Your task to perform on an android device: Open the stopwatch Image 0: 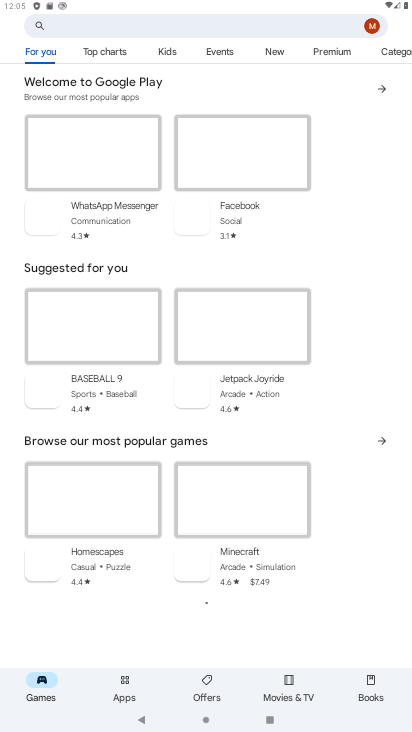
Step 0: click (215, 634)
Your task to perform on an android device: Open the stopwatch Image 1: 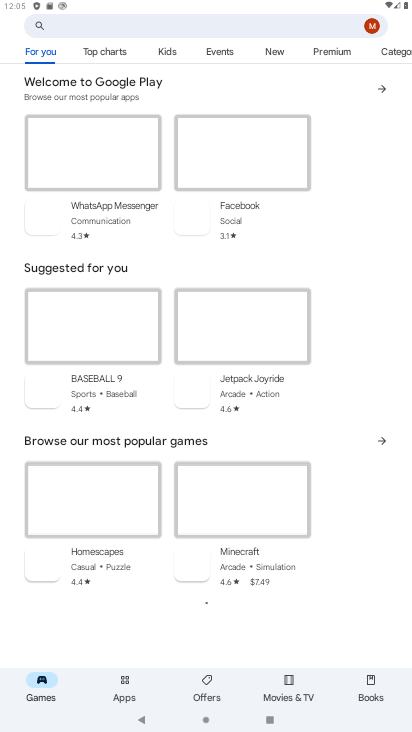
Step 1: press back button
Your task to perform on an android device: Open the stopwatch Image 2: 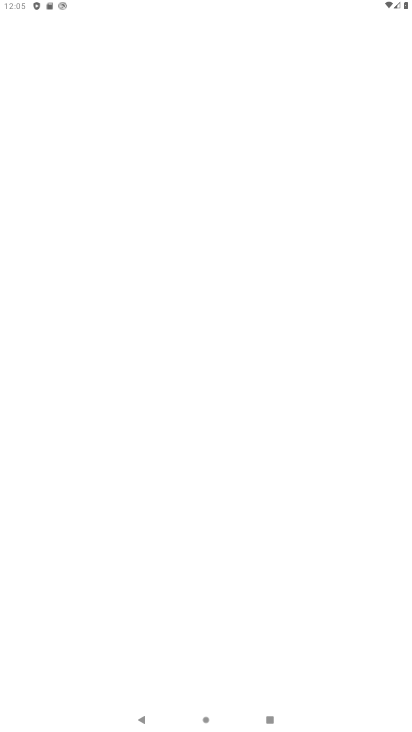
Step 2: press back button
Your task to perform on an android device: Open the stopwatch Image 3: 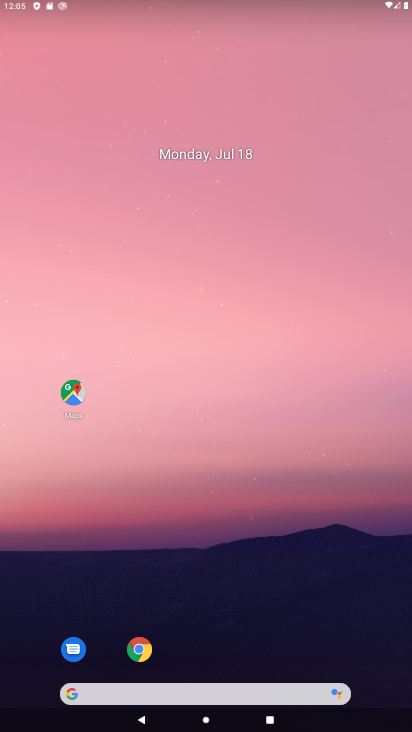
Step 3: press home button
Your task to perform on an android device: Open the stopwatch Image 4: 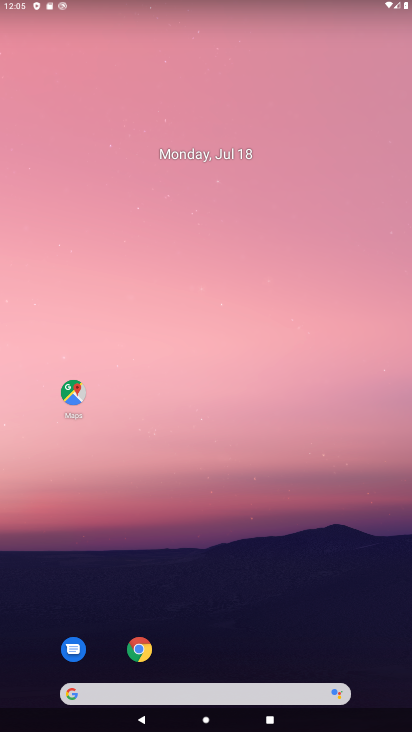
Step 4: drag from (251, 534) to (202, 102)
Your task to perform on an android device: Open the stopwatch Image 5: 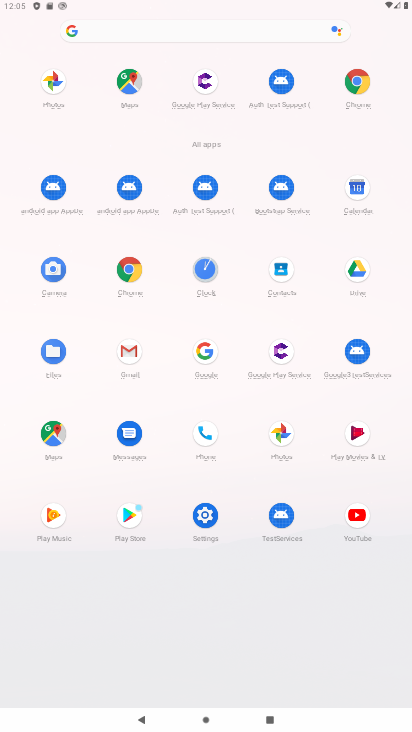
Step 5: click (208, 263)
Your task to perform on an android device: Open the stopwatch Image 6: 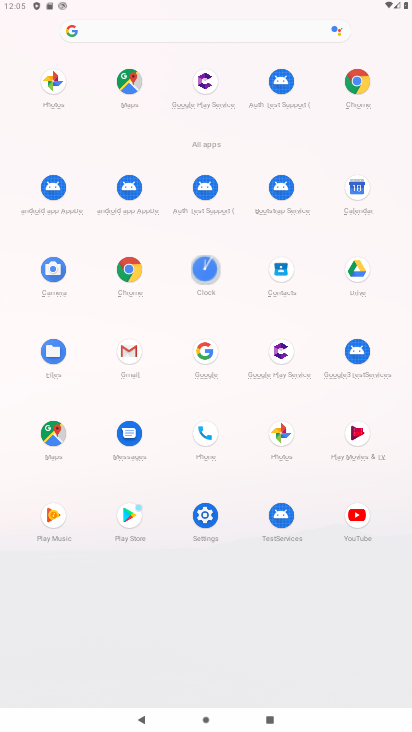
Step 6: click (209, 263)
Your task to perform on an android device: Open the stopwatch Image 7: 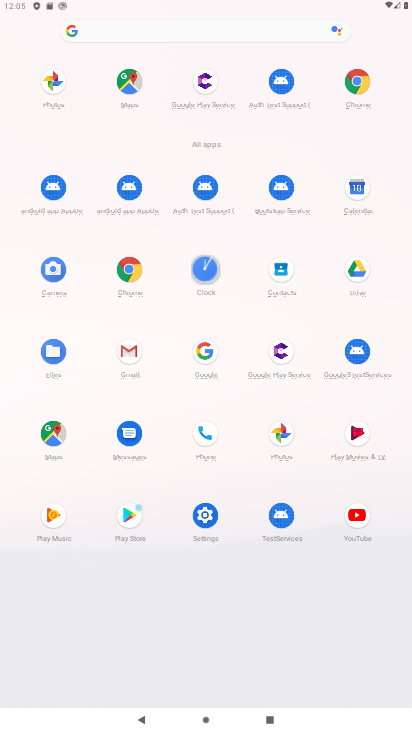
Step 7: click (210, 264)
Your task to perform on an android device: Open the stopwatch Image 8: 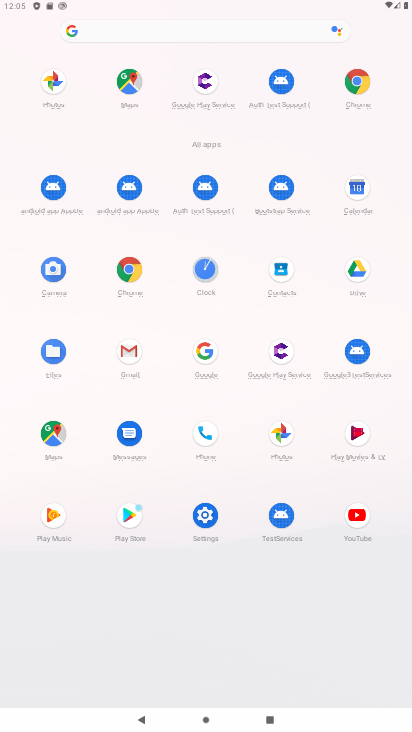
Step 8: click (210, 264)
Your task to perform on an android device: Open the stopwatch Image 9: 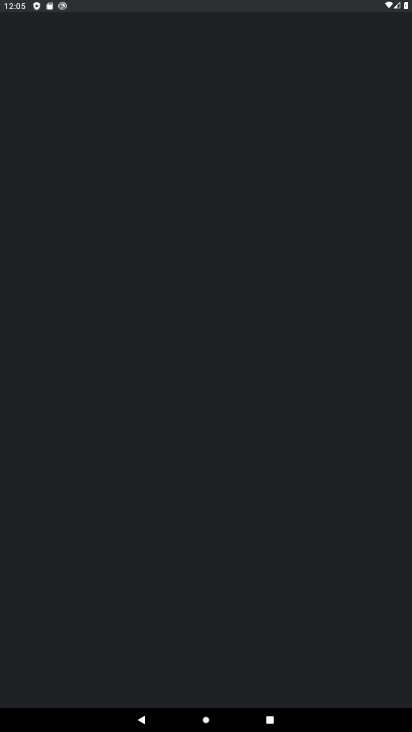
Step 9: click (211, 266)
Your task to perform on an android device: Open the stopwatch Image 10: 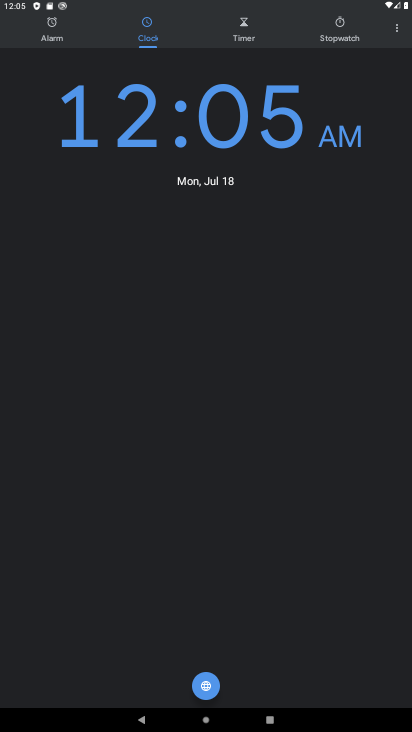
Step 10: click (341, 35)
Your task to perform on an android device: Open the stopwatch Image 11: 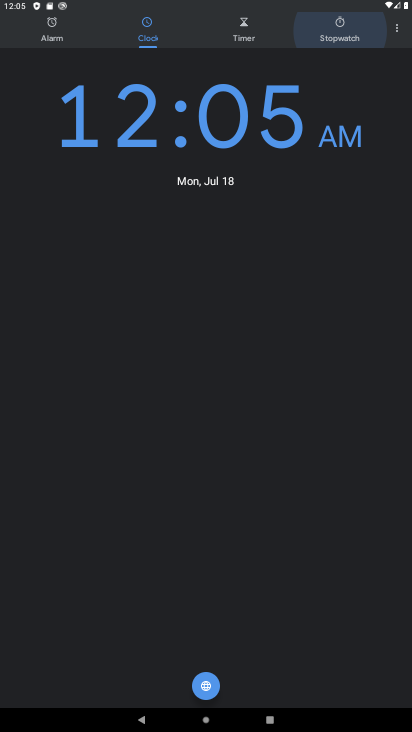
Step 11: click (346, 32)
Your task to perform on an android device: Open the stopwatch Image 12: 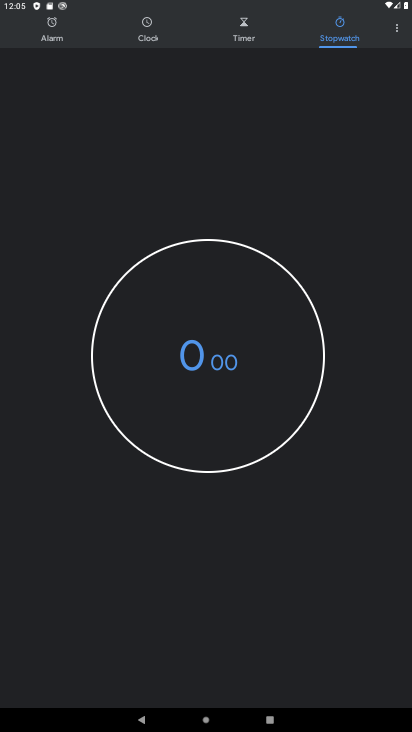
Step 12: click (346, 32)
Your task to perform on an android device: Open the stopwatch Image 13: 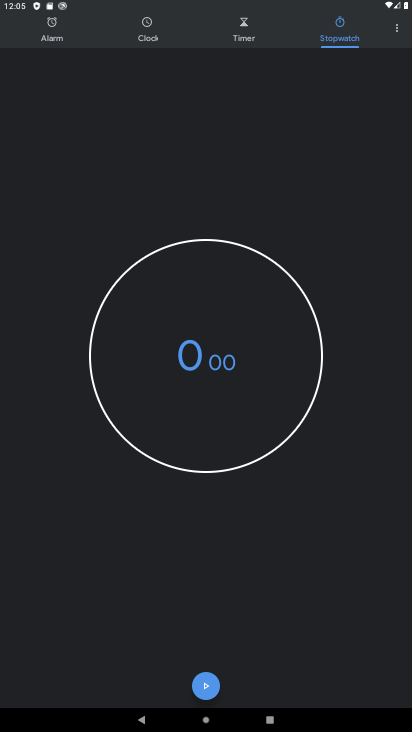
Step 13: click (214, 680)
Your task to perform on an android device: Open the stopwatch Image 14: 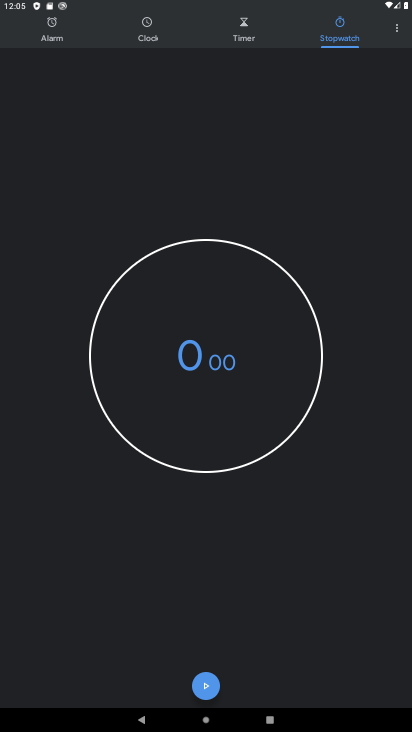
Step 14: click (209, 689)
Your task to perform on an android device: Open the stopwatch Image 15: 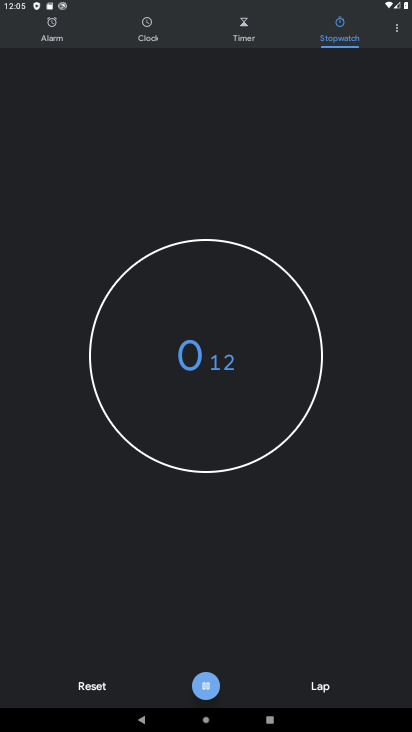
Step 15: click (215, 694)
Your task to perform on an android device: Open the stopwatch Image 16: 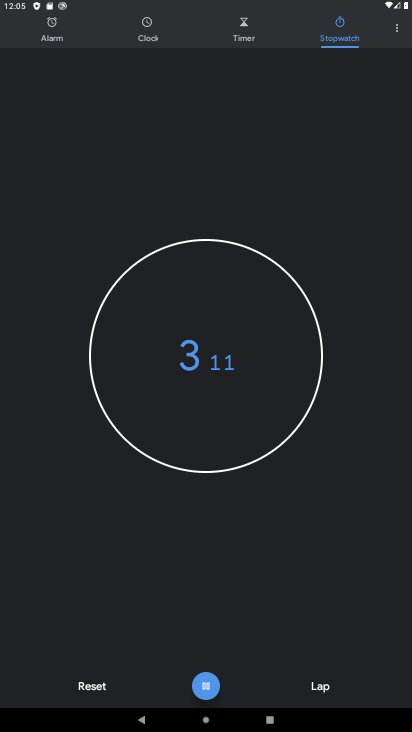
Step 16: click (210, 694)
Your task to perform on an android device: Open the stopwatch Image 17: 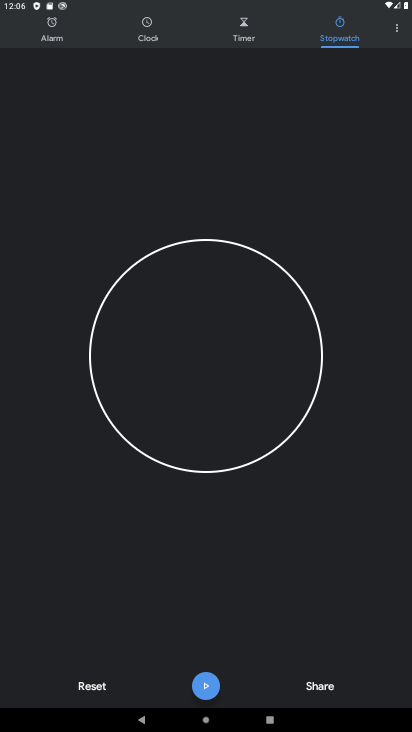
Step 17: task complete